Your task to perform on an android device: allow cookies in the chrome app Image 0: 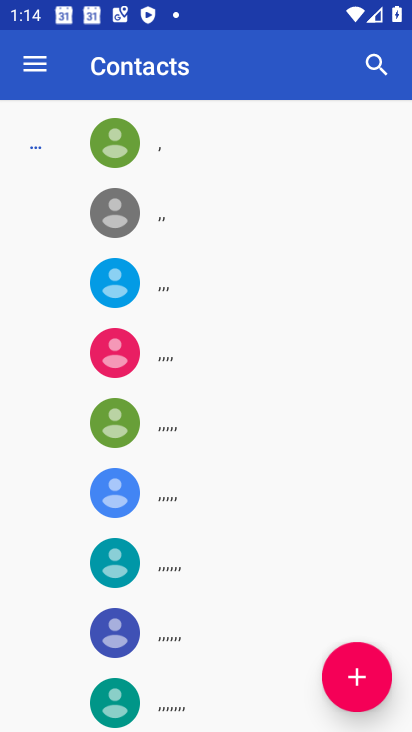
Step 0: press home button
Your task to perform on an android device: allow cookies in the chrome app Image 1: 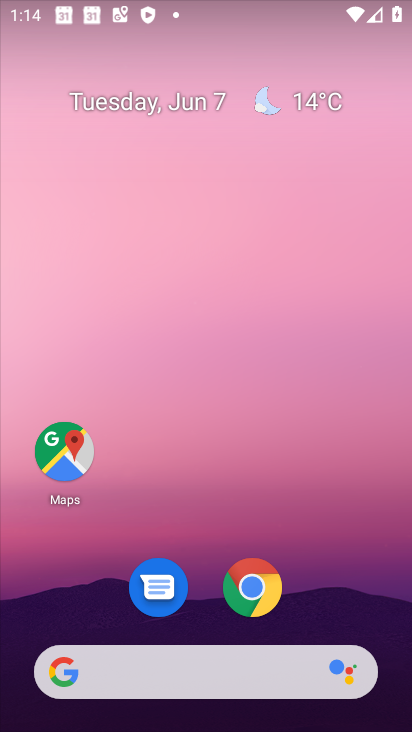
Step 1: click (256, 598)
Your task to perform on an android device: allow cookies in the chrome app Image 2: 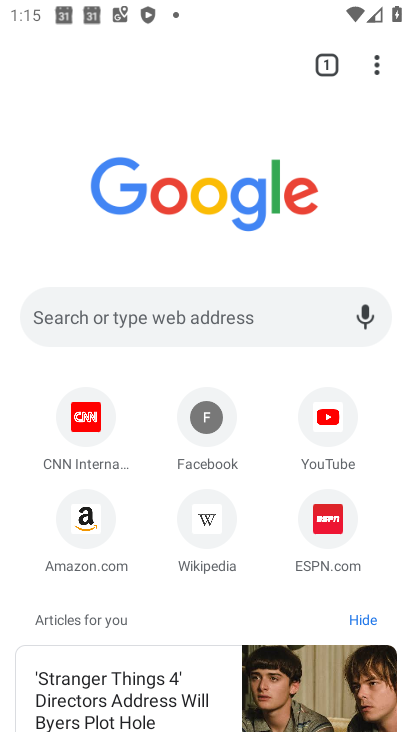
Step 2: click (373, 65)
Your task to perform on an android device: allow cookies in the chrome app Image 3: 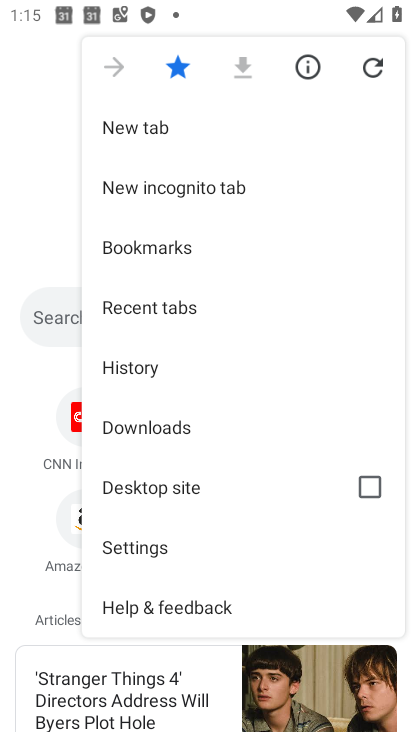
Step 3: click (181, 551)
Your task to perform on an android device: allow cookies in the chrome app Image 4: 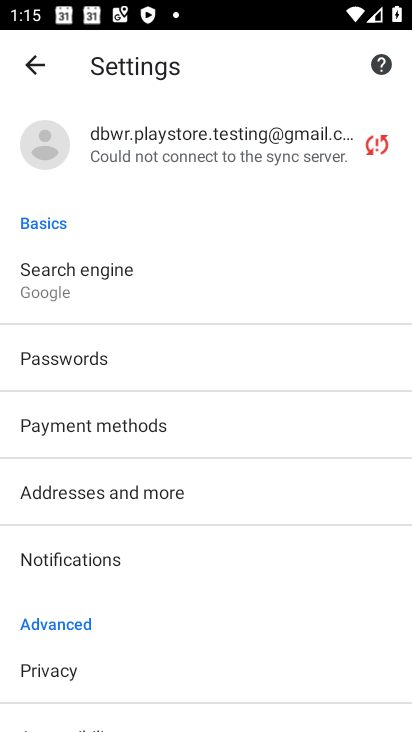
Step 4: drag from (228, 565) to (240, 265)
Your task to perform on an android device: allow cookies in the chrome app Image 5: 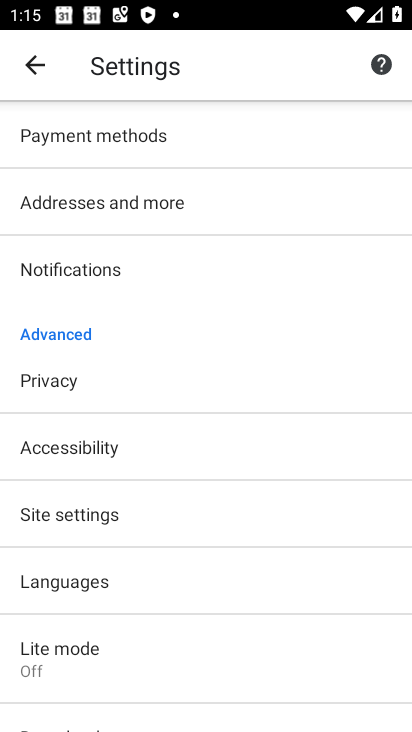
Step 5: click (86, 514)
Your task to perform on an android device: allow cookies in the chrome app Image 6: 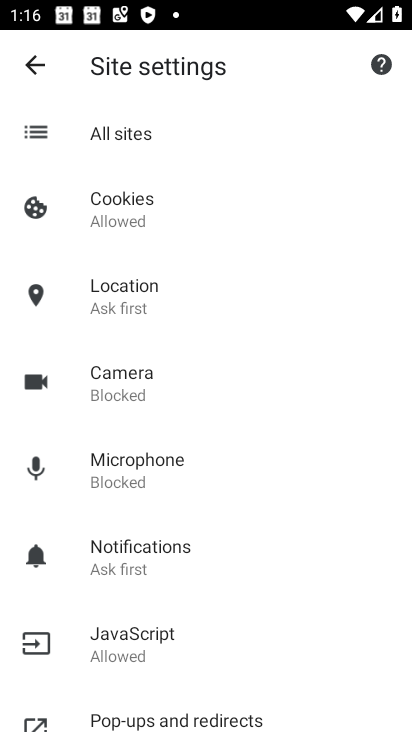
Step 6: click (168, 218)
Your task to perform on an android device: allow cookies in the chrome app Image 7: 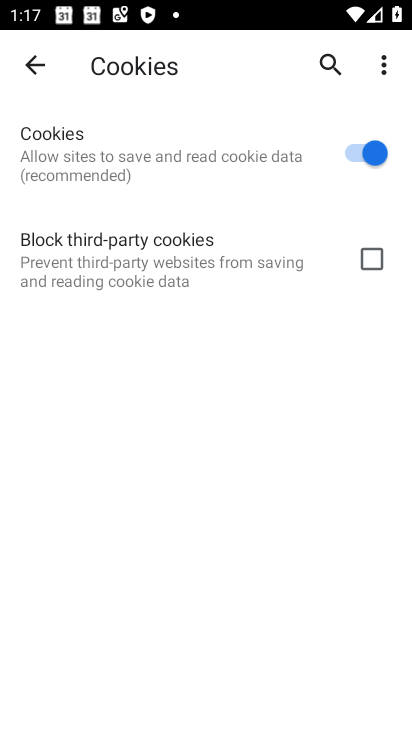
Step 7: task complete